Your task to perform on an android device: What is the speed of a jet? Image 0: 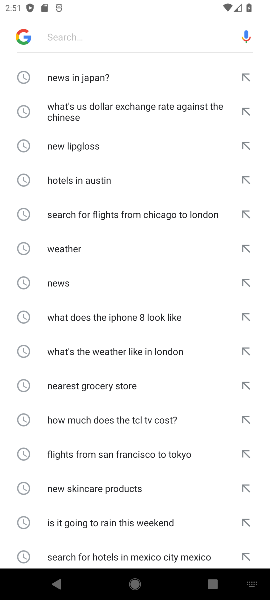
Step 0: press home button
Your task to perform on an android device: What is the speed of a jet? Image 1: 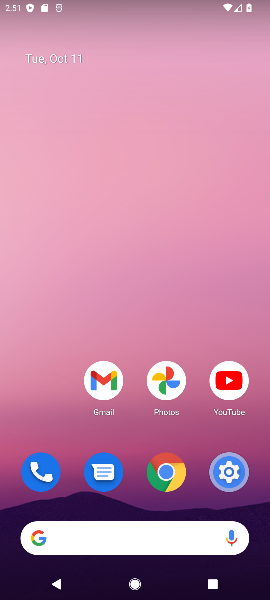
Step 1: click (179, 461)
Your task to perform on an android device: What is the speed of a jet? Image 2: 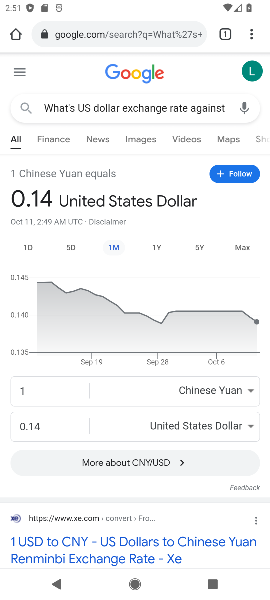
Step 2: click (79, 39)
Your task to perform on an android device: What is the speed of a jet? Image 3: 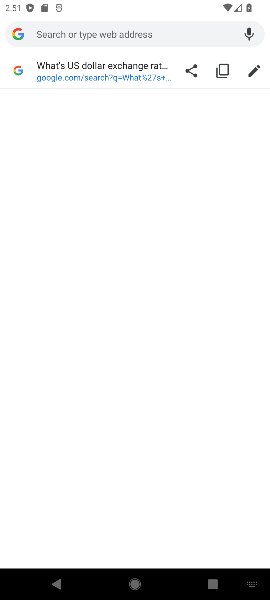
Step 3: type "What is the speed of a jet?"
Your task to perform on an android device: What is the speed of a jet? Image 4: 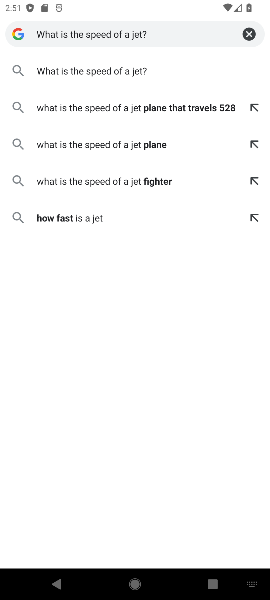
Step 4: click (111, 72)
Your task to perform on an android device: What is the speed of a jet? Image 5: 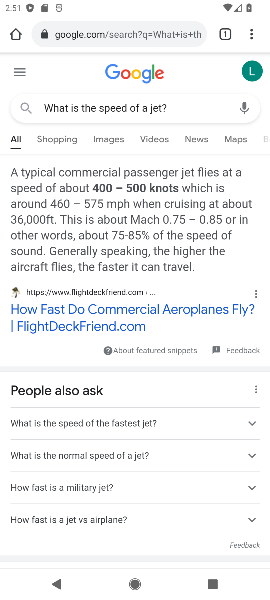
Step 5: task complete